Your task to perform on an android device: Open internet settings Image 0: 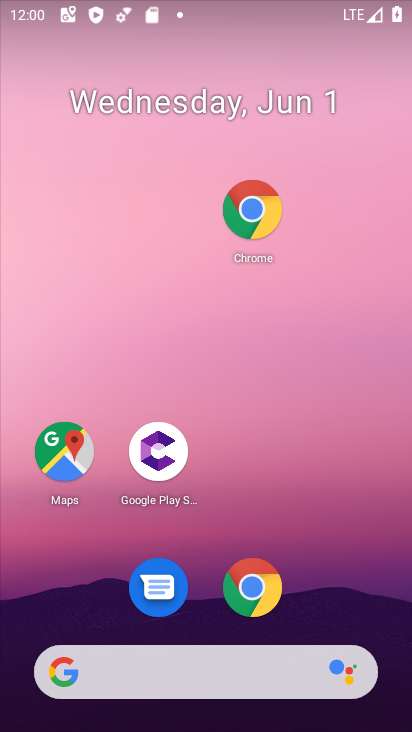
Step 0: drag from (365, 593) to (390, 108)
Your task to perform on an android device: Open internet settings Image 1: 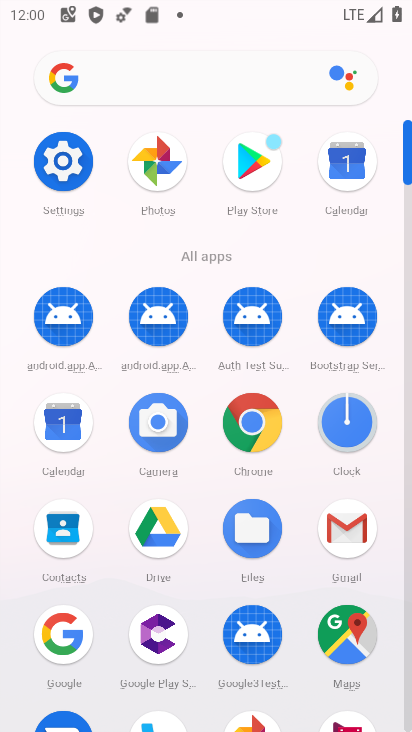
Step 1: click (44, 173)
Your task to perform on an android device: Open internet settings Image 2: 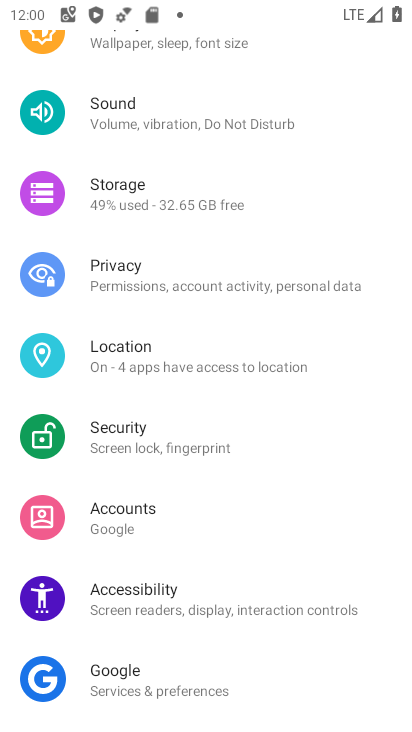
Step 2: drag from (145, 172) to (241, 516)
Your task to perform on an android device: Open internet settings Image 3: 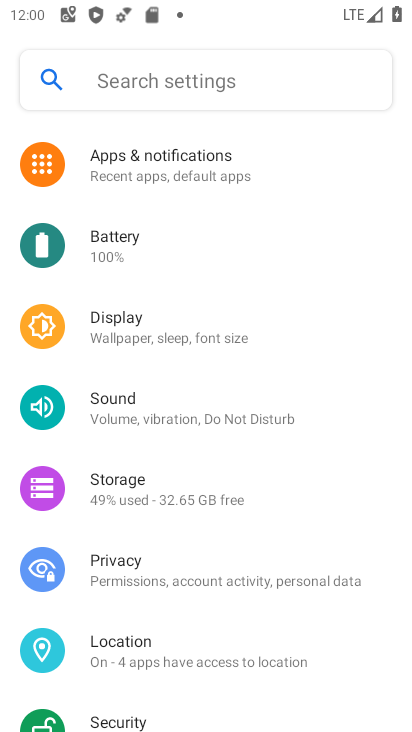
Step 3: drag from (232, 182) to (267, 391)
Your task to perform on an android device: Open internet settings Image 4: 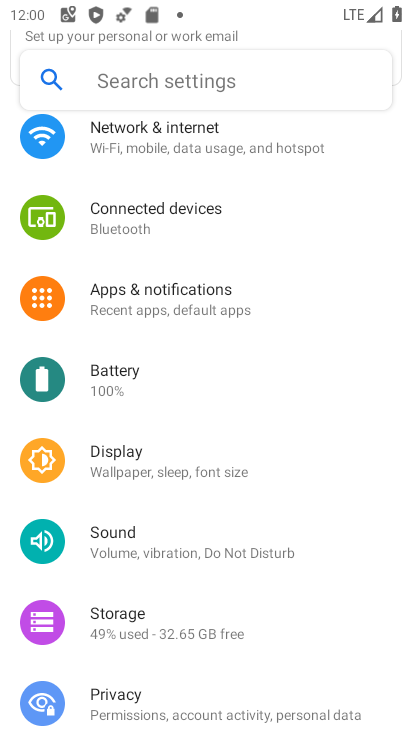
Step 4: click (246, 152)
Your task to perform on an android device: Open internet settings Image 5: 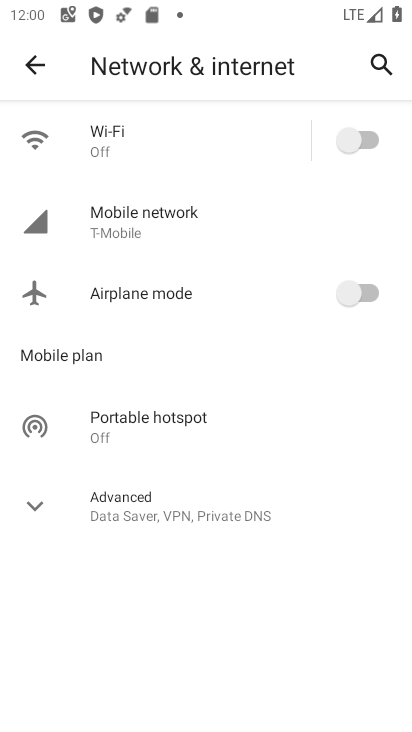
Step 5: task complete